Your task to perform on an android device: delete the emails in spam in the gmail app Image 0: 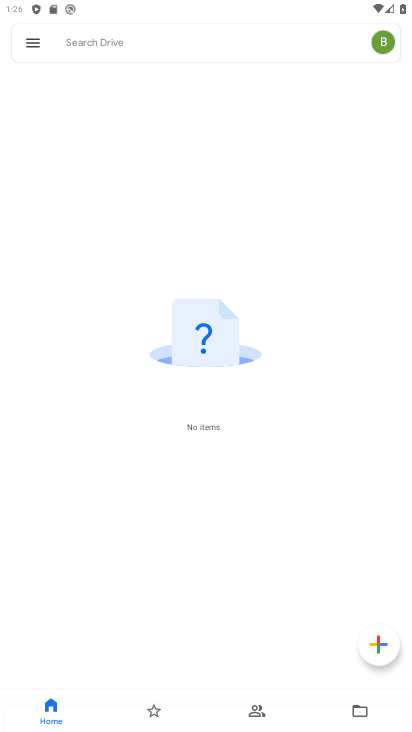
Step 0: press home button
Your task to perform on an android device: delete the emails in spam in the gmail app Image 1: 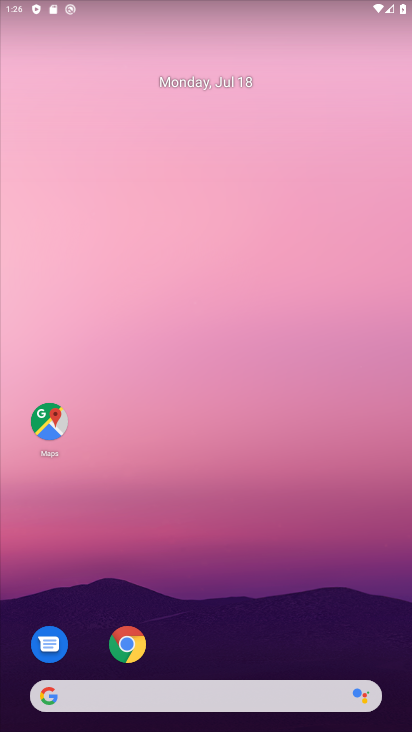
Step 1: drag from (284, 629) to (152, 41)
Your task to perform on an android device: delete the emails in spam in the gmail app Image 2: 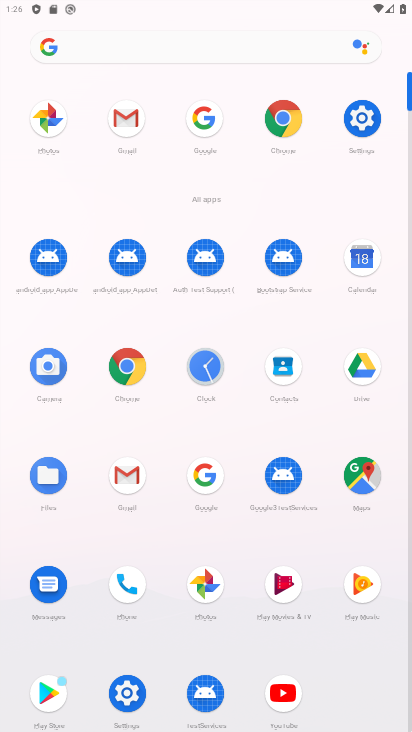
Step 2: click (132, 474)
Your task to perform on an android device: delete the emails in spam in the gmail app Image 3: 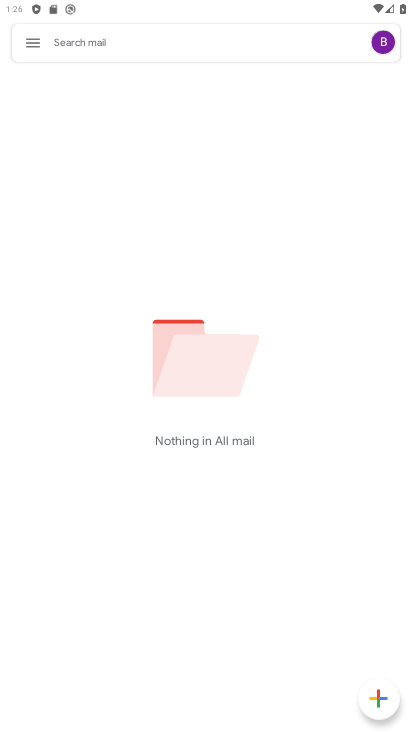
Step 3: click (39, 40)
Your task to perform on an android device: delete the emails in spam in the gmail app Image 4: 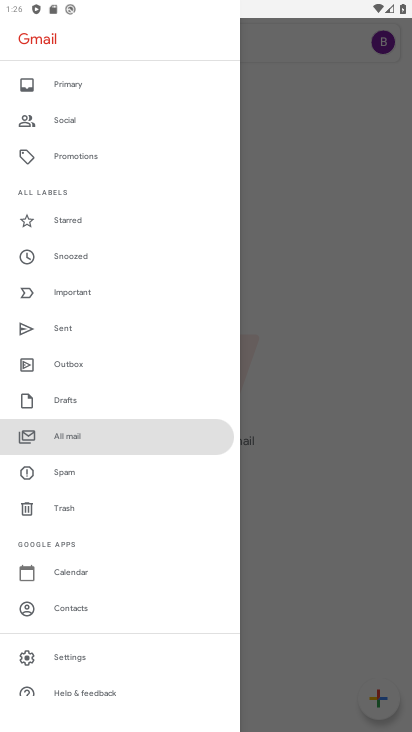
Step 4: click (72, 478)
Your task to perform on an android device: delete the emails in spam in the gmail app Image 5: 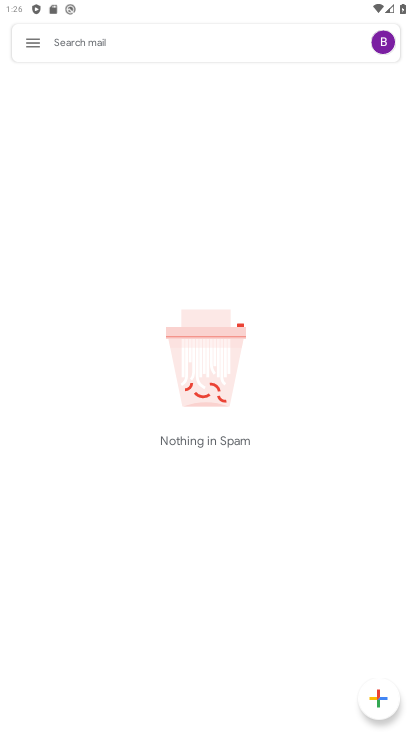
Step 5: task complete